Your task to perform on an android device: change the clock display to digital Image 0: 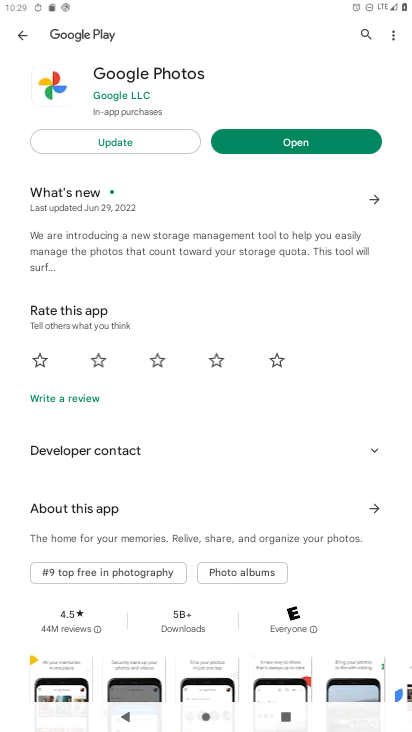
Step 0: press home button
Your task to perform on an android device: change the clock display to digital Image 1: 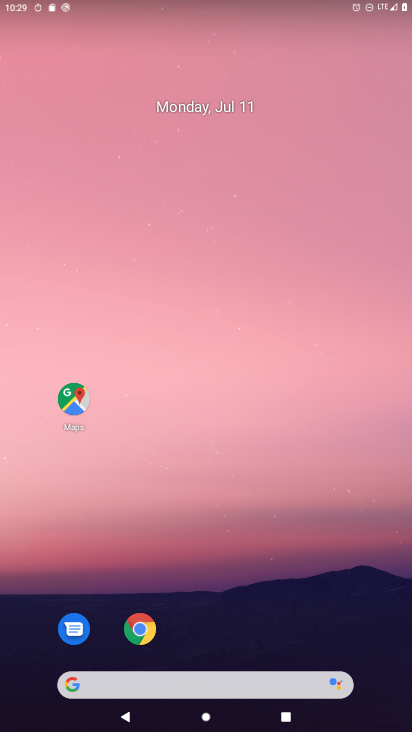
Step 1: drag from (178, 646) to (153, 236)
Your task to perform on an android device: change the clock display to digital Image 2: 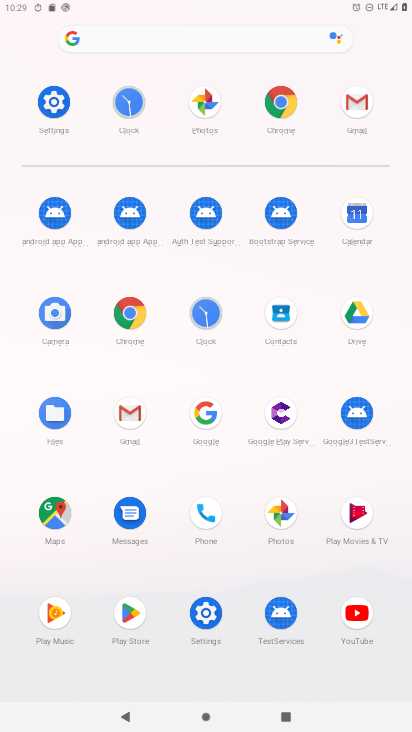
Step 2: click (125, 94)
Your task to perform on an android device: change the clock display to digital Image 3: 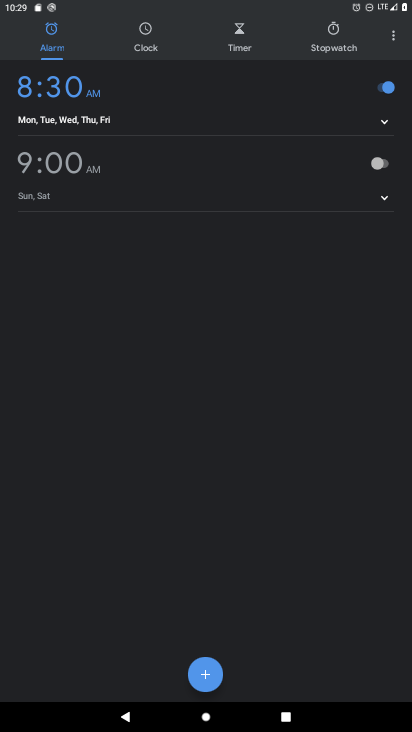
Step 3: click (387, 38)
Your task to perform on an android device: change the clock display to digital Image 4: 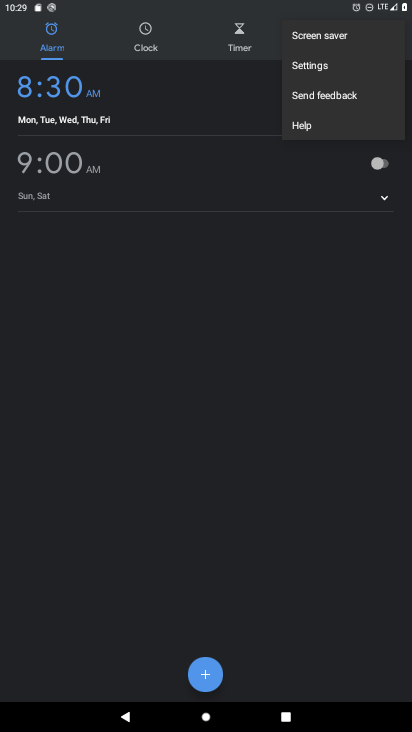
Step 4: click (369, 62)
Your task to perform on an android device: change the clock display to digital Image 5: 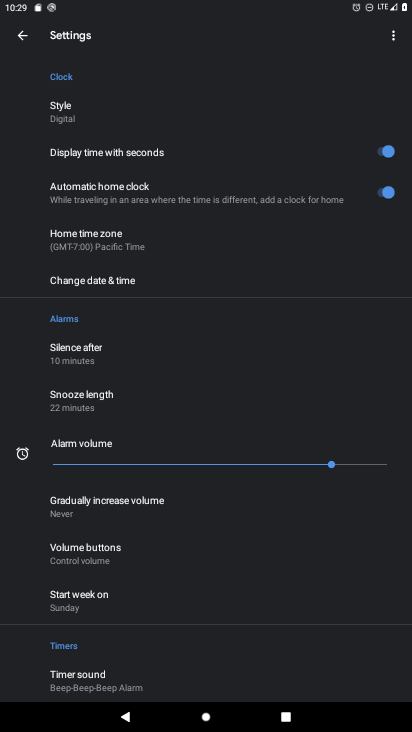
Step 5: click (243, 112)
Your task to perform on an android device: change the clock display to digital Image 6: 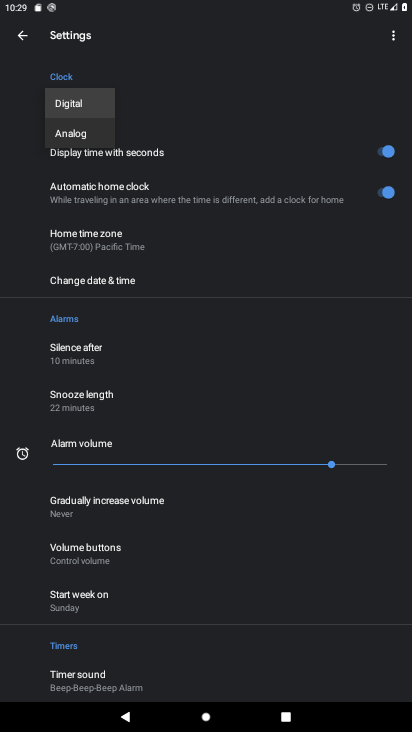
Step 6: task complete